Your task to perform on an android device: show emergency info Image 0: 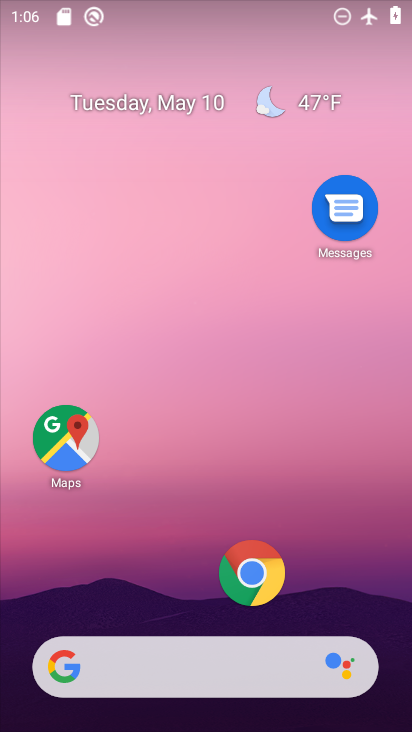
Step 0: drag from (175, 596) to (297, 127)
Your task to perform on an android device: show emergency info Image 1: 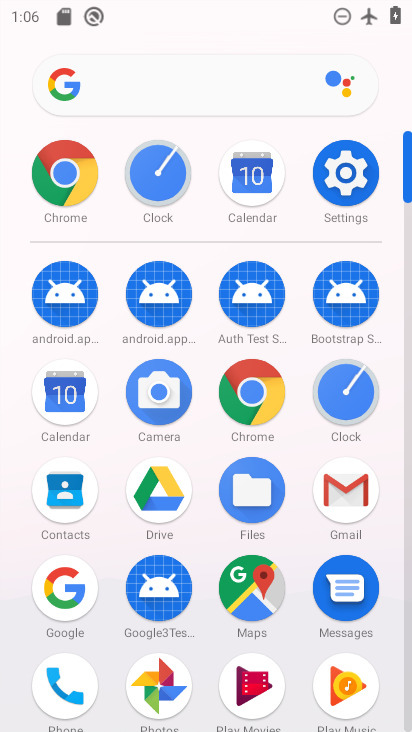
Step 1: click (351, 182)
Your task to perform on an android device: show emergency info Image 2: 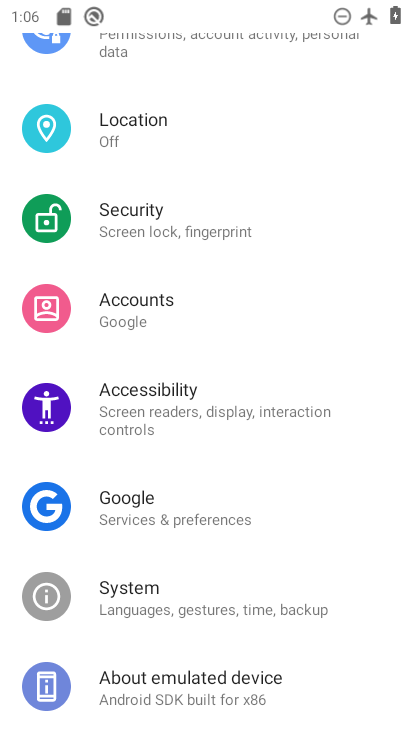
Step 2: click (211, 682)
Your task to perform on an android device: show emergency info Image 3: 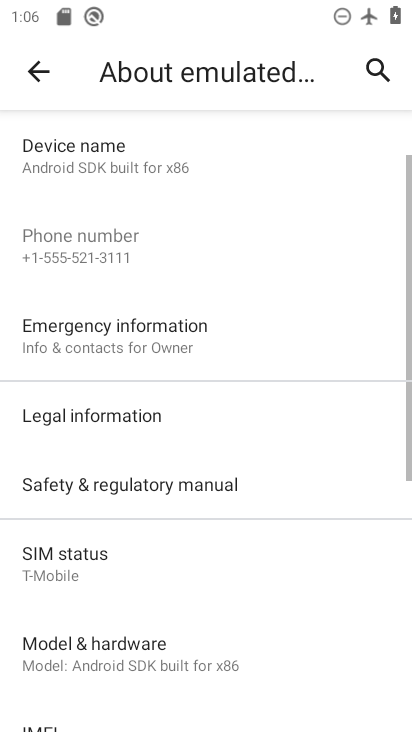
Step 3: click (235, 295)
Your task to perform on an android device: show emergency info Image 4: 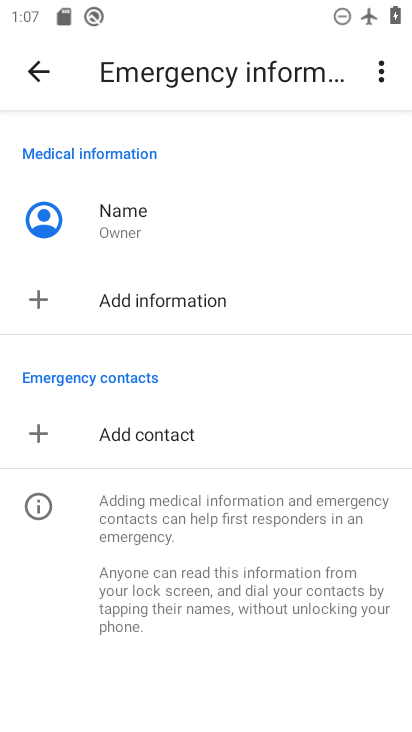
Step 4: task complete